Your task to perform on an android device: Show me the alarms in the clock app Image 0: 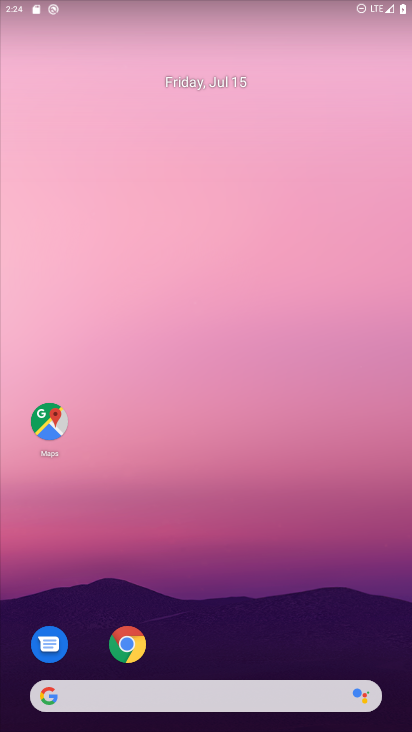
Step 0: drag from (22, 551) to (303, 70)
Your task to perform on an android device: Show me the alarms in the clock app Image 1: 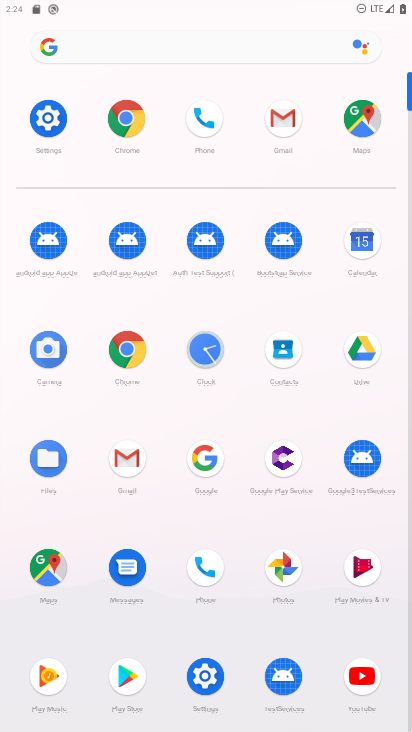
Step 1: click (205, 350)
Your task to perform on an android device: Show me the alarms in the clock app Image 2: 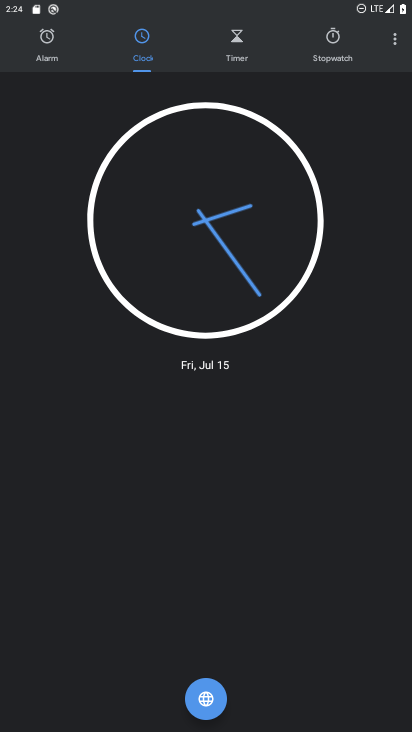
Step 2: click (45, 55)
Your task to perform on an android device: Show me the alarms in the clock app Image 3: 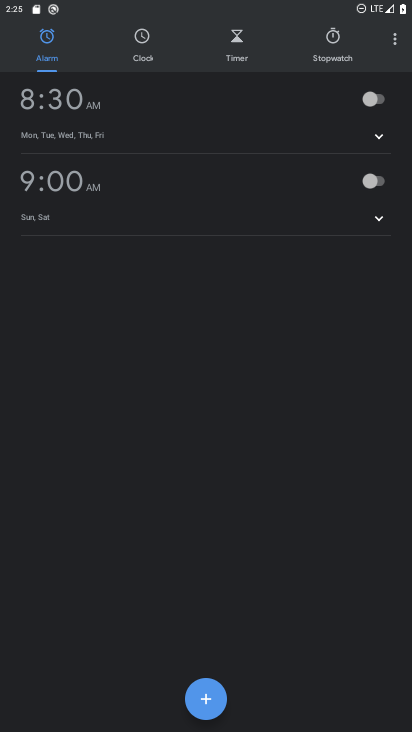
Step 3: task complete